Your task to perform on an android device: turn on priority inbox in the gmail app Image 0: 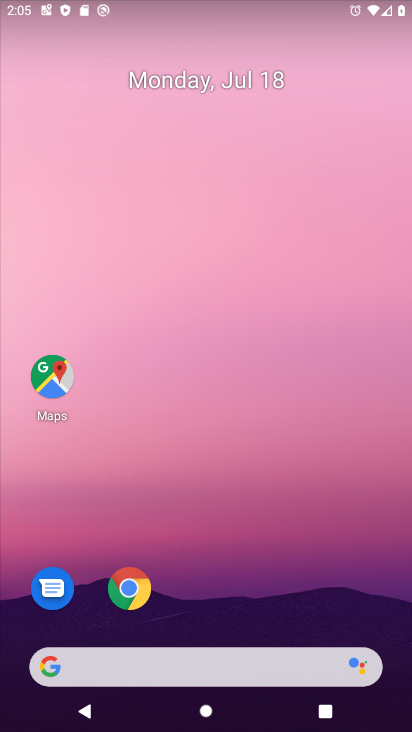
Step 0: drag from (398, 620) to (225, 5)
Your task to perform on an android device: turn on priority inbox in the gmail app Image 1: 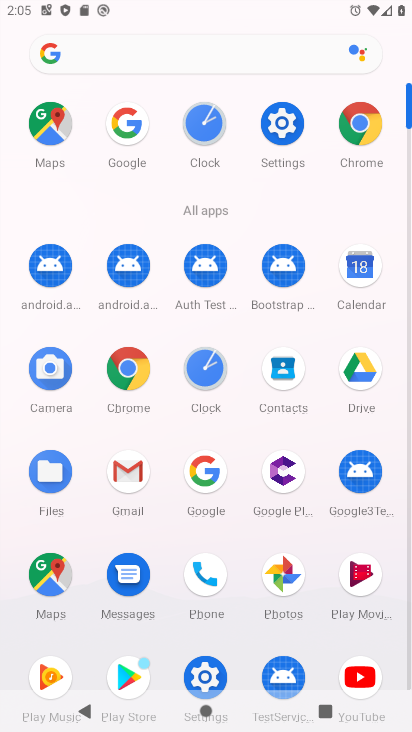
Step 1: click (128, 468)
Your task to perform on an android device: turn on priority inbox in the gmail app Image 2: 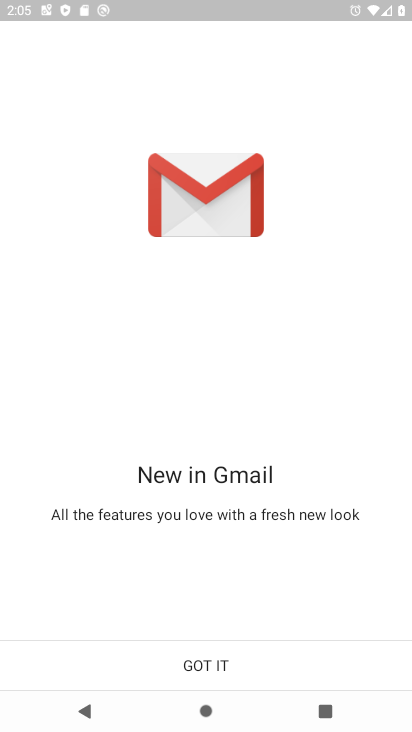
Step 2: click (195, 663)
Your task to perform on an android device: turn on priority inbox in the gmail app Image 3: 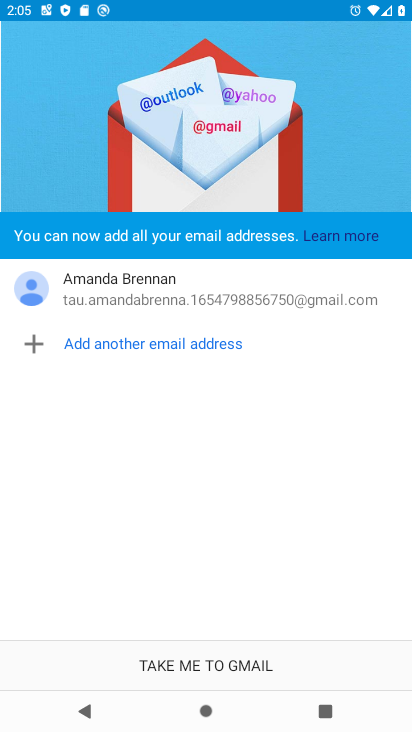
Step 3: click (200, 663)
Your task to perform on an android device: turn on priority inbox in the gmail app Image 4: 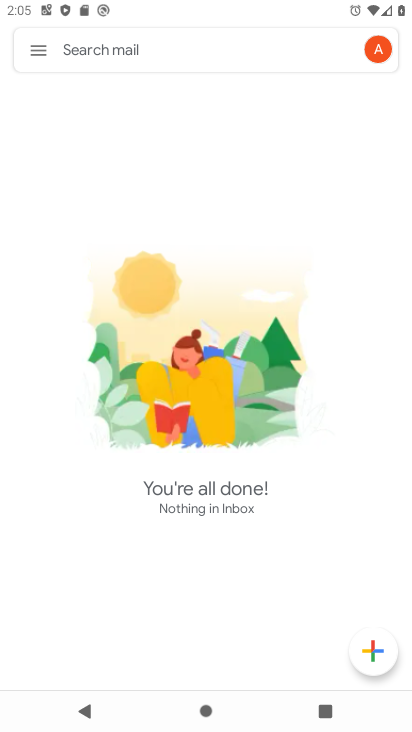
Step 4: click (41, 51)
Your task to perform on an android device: turn on priority inbox in the gmail app Image 5: 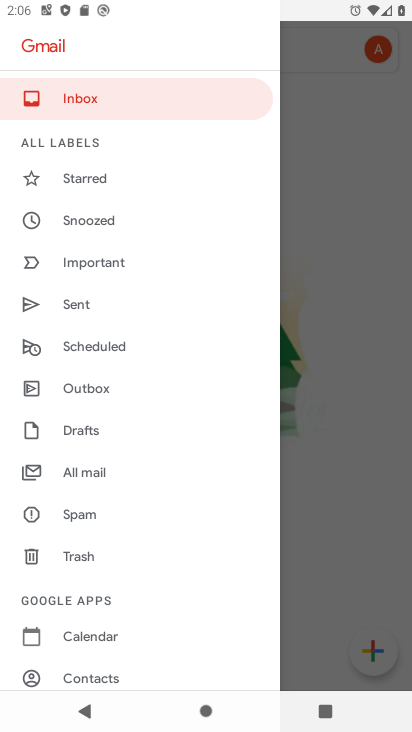
Step 5: drag from (132, 578) to (112, 266)
Your task to perform on an android device: turn on priority inbox in the gmail app Image 6: 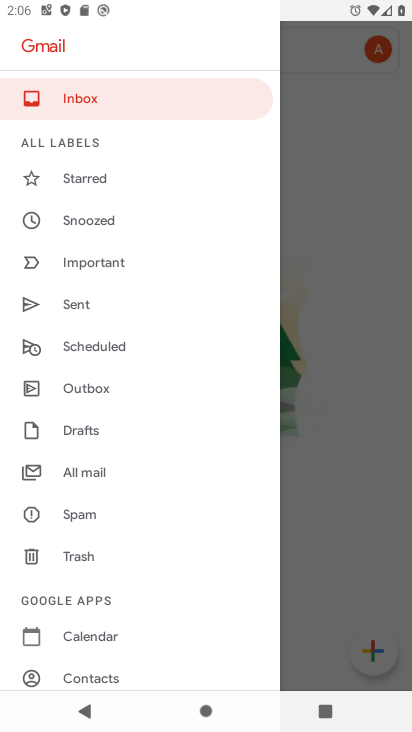
Step 6: drag from (102, 672) to (77, 366)
Your task to perform on an android device: turn on priority inbox in the gmail app Image 7: 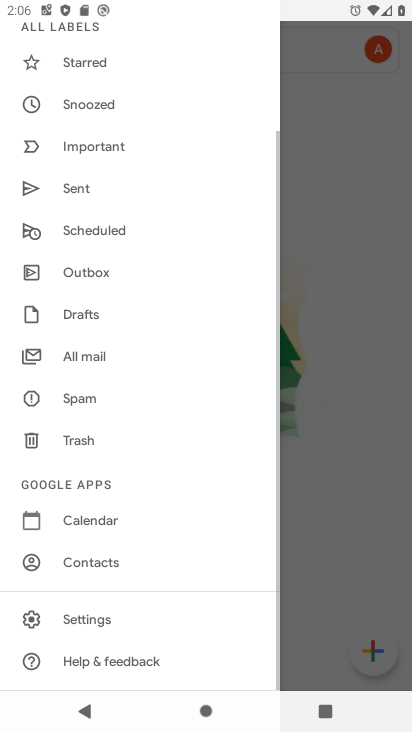
Step 7: click (129, 616)
Your task to perform on an android device: turn on priority inbox in the gmail app Image 8: 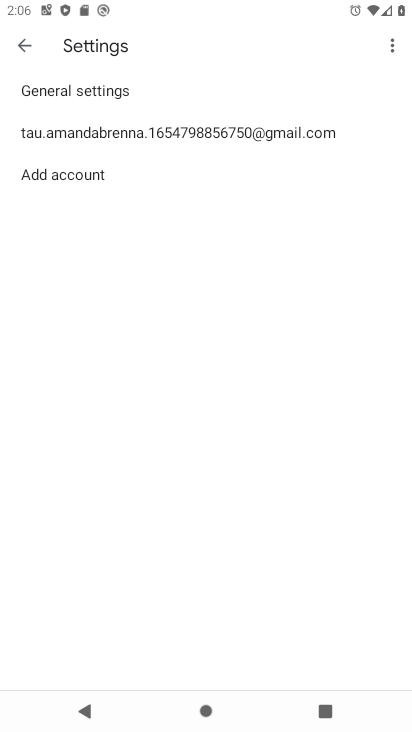
Step 8: click (217, 134)
Your task to perform on an android device: turn on priority inbox in the gmail app Image 9: 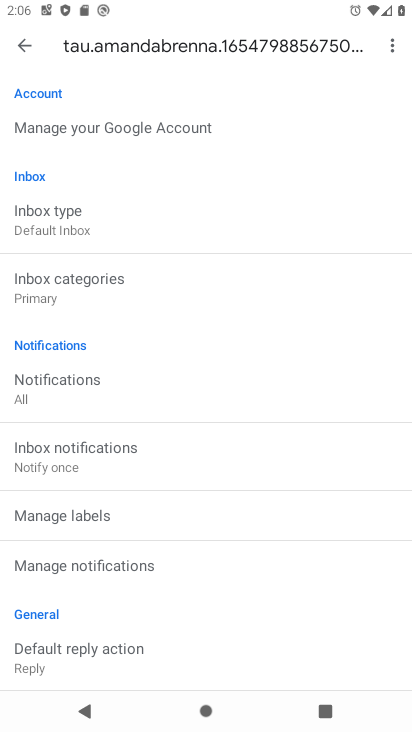
Step 9: click (167, 609)
Your task to perform on an android device: turn on priority inbox in the gmail app Image 10: 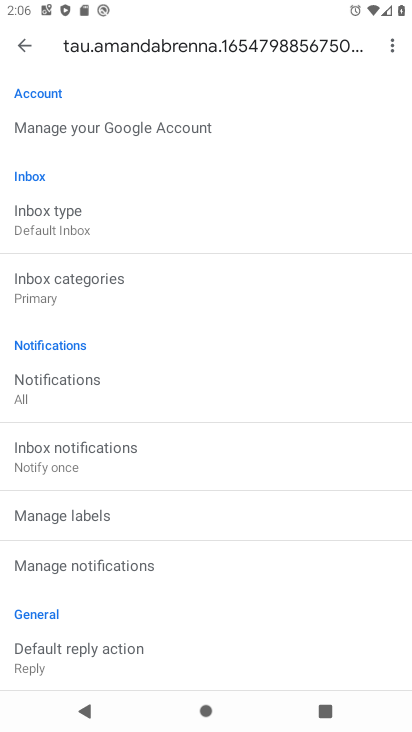
Step 10: click (167, 609)
Your task to perform on an android device: turn on priority inbox in the gmail app Image 11: 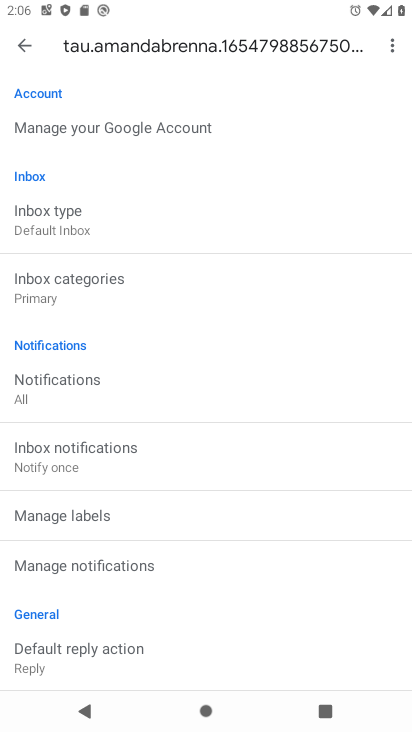
Step 11: drag from (167, 609) to (120, 270)
Your task to perform on an android device: turn on priority inbox in the gmail app Image 12: 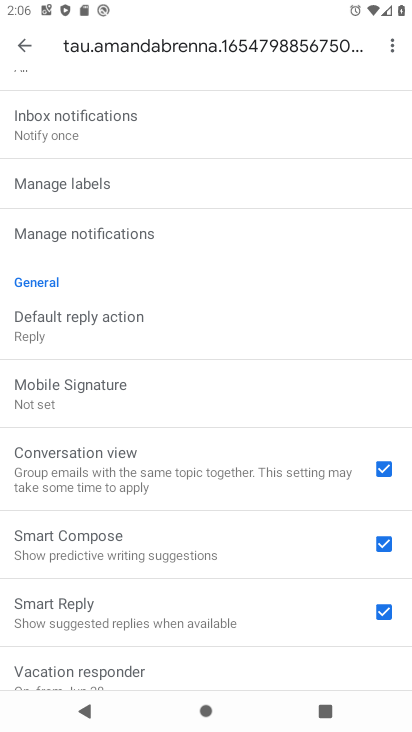
Step 12: drag from (147, 126) to (177, 394)
Your task to perform on an android device: turn on priority inbox in the gmail app Image 13: 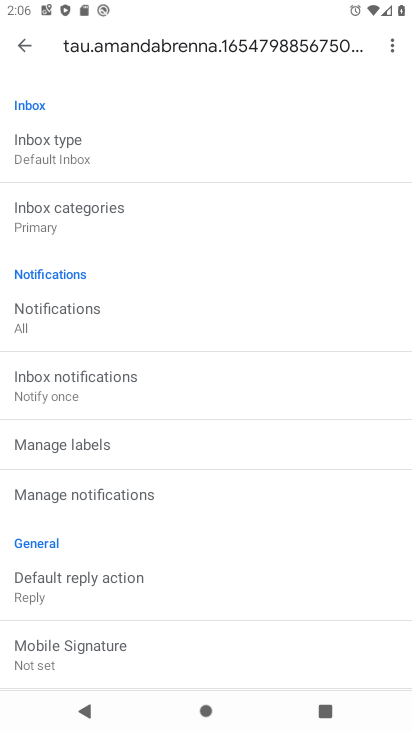
Step 13: click (122, 160)
Your task to perform on an android device: turn on priority inbox in the gmail app Image 14: 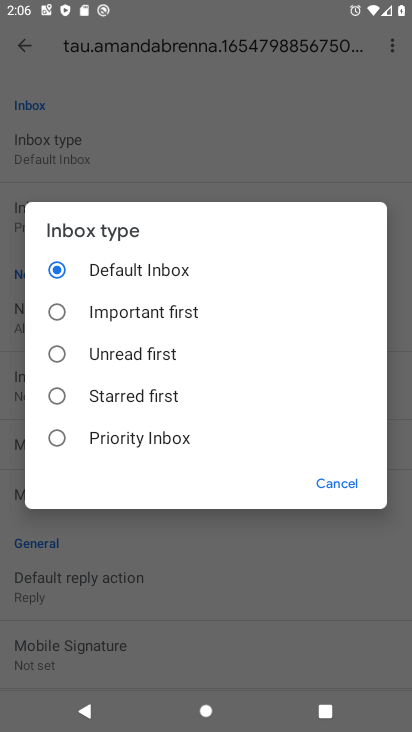
Step 14: click (169, 449)
Your task to perform on an android device: turn on priority inbox in the gmail app Image 15: 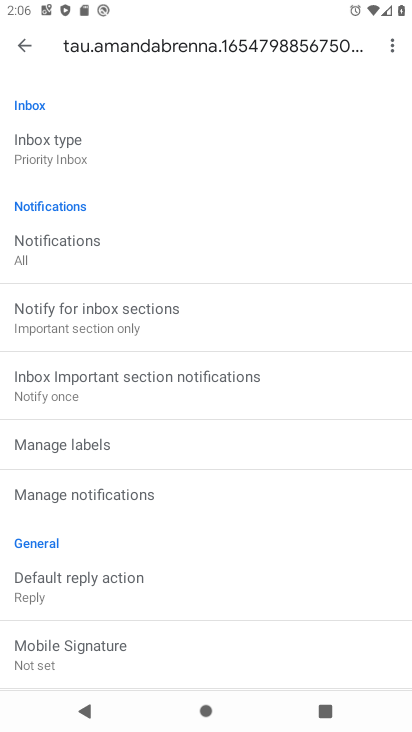
Step 15: task complete